Your task to perform on an android device: What's the weather going to be this weekend? Image 0: 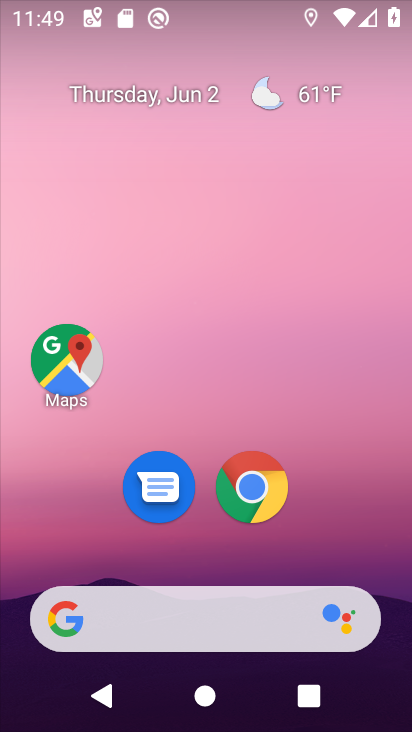
Step 0: drag from (330, 551) to (251, 104)
Your task to perform on an android device: What's the weather going to be this weekend? Image 1: 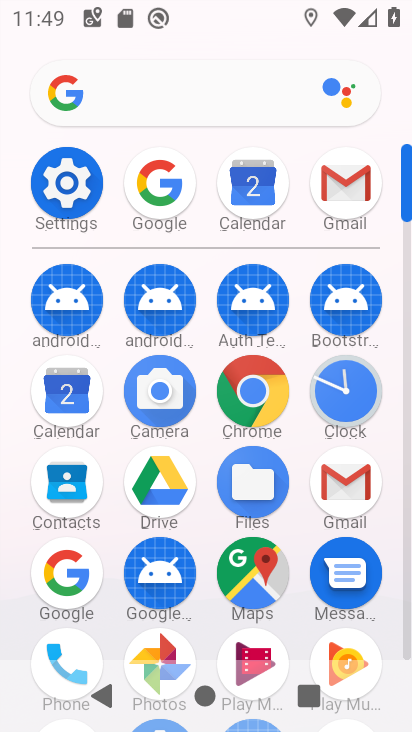
Step 1: click (153, 181)
Your task to perform on an android device: What's the weather going to be this weekend? Image 2: 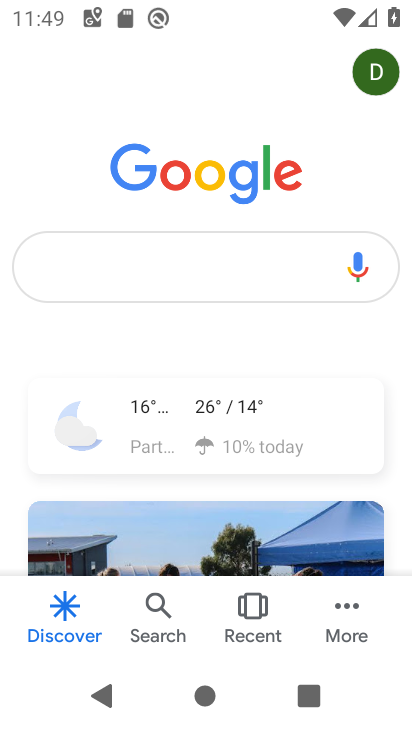
Step 2: click (167, 279)
Your task to perform on an android device: What's the weather going to be this weekend? Image 3: 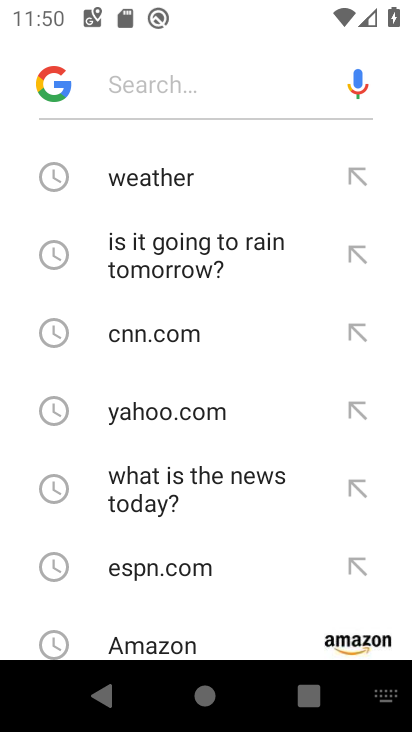
Step 3: type "What's the weather going to be this weekend?"
Your task to perform on an android device: What's the weather going to be this weekend? Image 4: 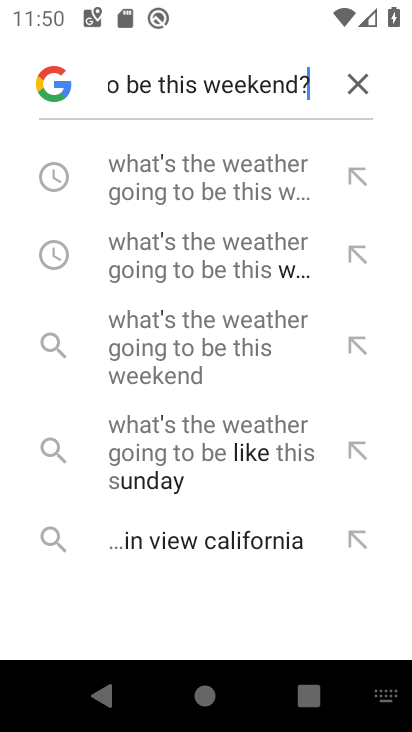
Step 4: click (148, 194)
Your task to perform on an android device: What's the weather going to be this weekend? Image 5: 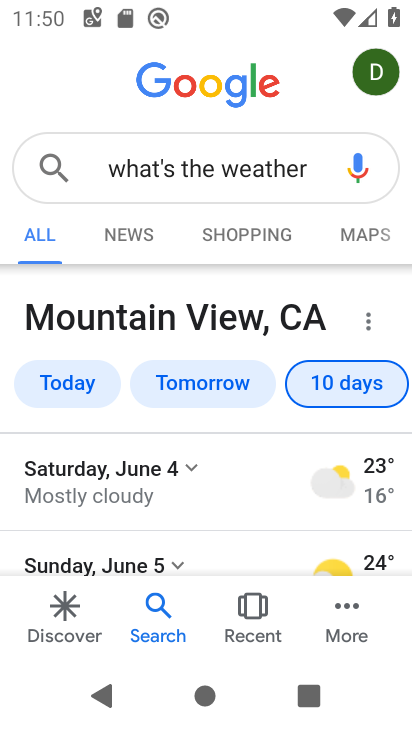
Step 5: task complete